Your task to perform on an android device: Go to accessibility settings Image 0: 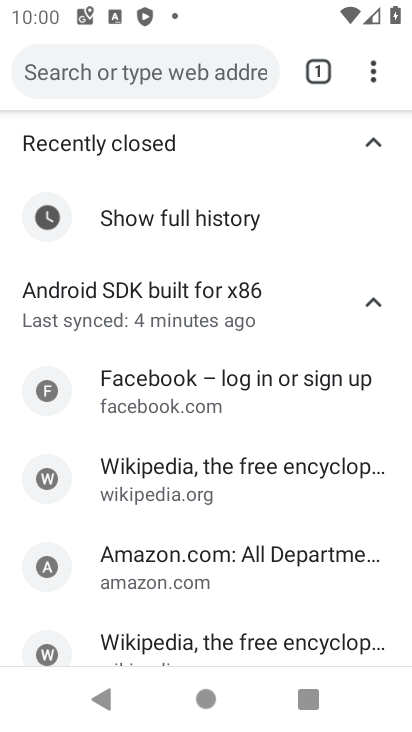
Step 0: press home button
Your task to perform on an android device: Go to accessibility settings Image 1: 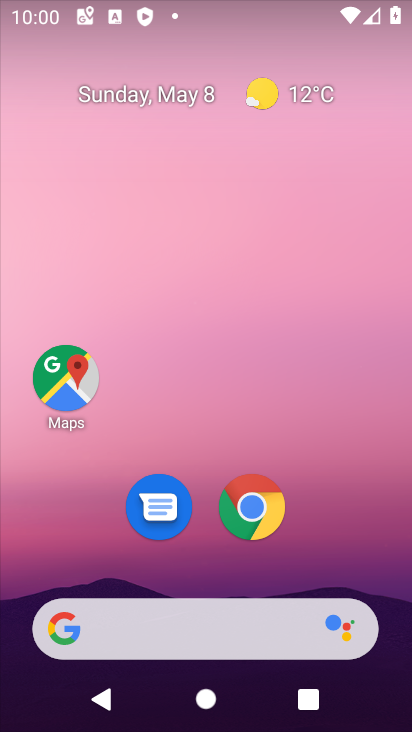
Step 1: drag from (256, 691) to (213, 105)
Your task to perform on an android device: Go to accessibility settings Image 2: 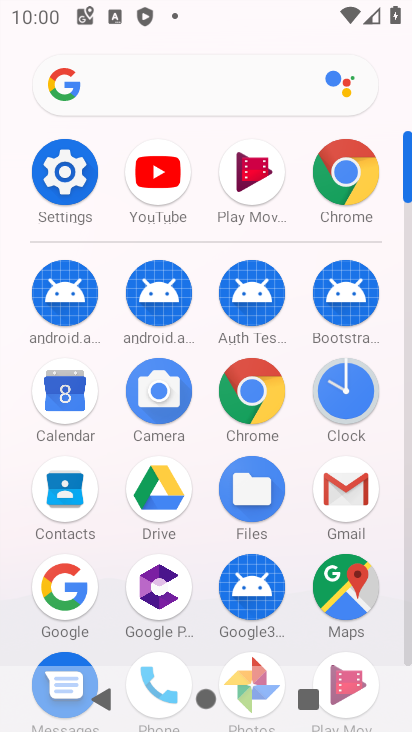
Step 2: click (81, 180)
Your task to perform on an android device: Go to accessibility settings Image 3: 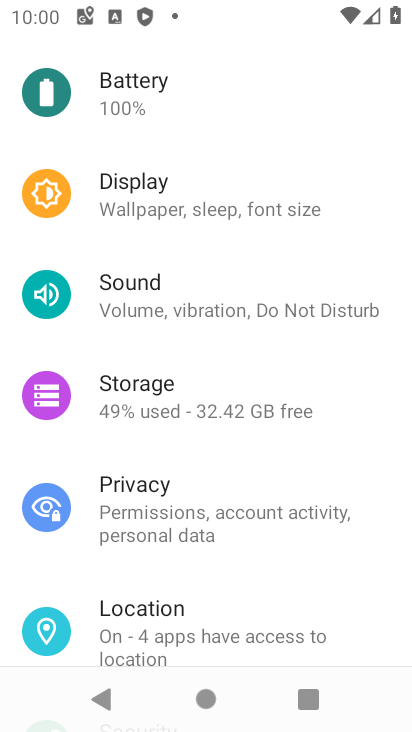
Step 3: drag from (259, 581) to (212, 10)
Your task to perform on an android device: Go to accessibility settings Image 4: 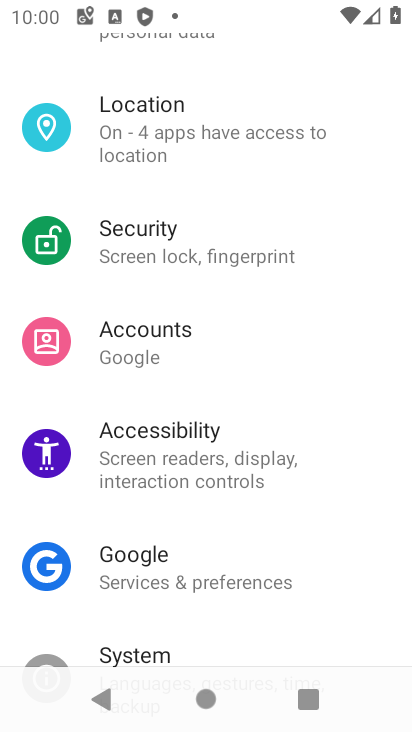
Step 4: click (219, 468)
Your task to perform on an android device: Go to accessibility settings Image 5: 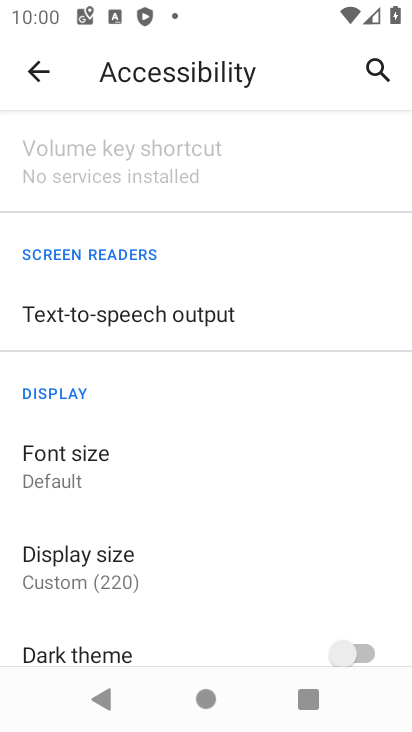
Step 5: task complete